Your task to perform on an android device: stop showing notifications on the lock screen Image 0: 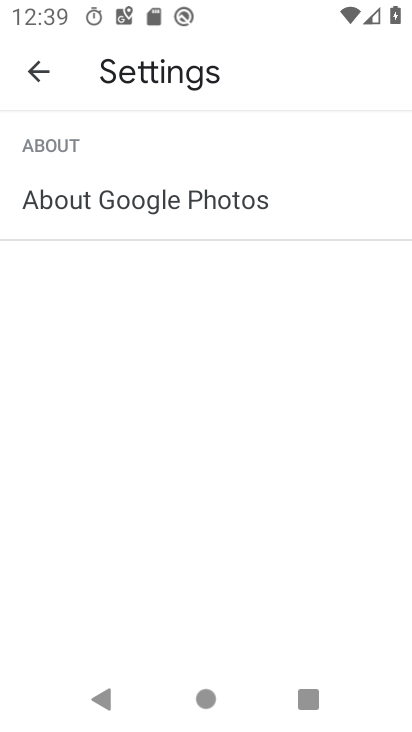
Step 0: click (29, 59)
Your task to perform on an android device: stop showing notifications on the lock screen Image 1: 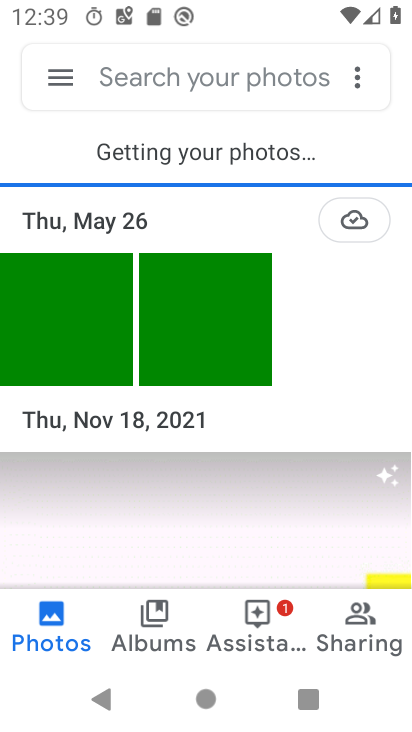
Step 1: press back button
Your task to perform on an android device: stop showing notifications on the lock screen Image 2: 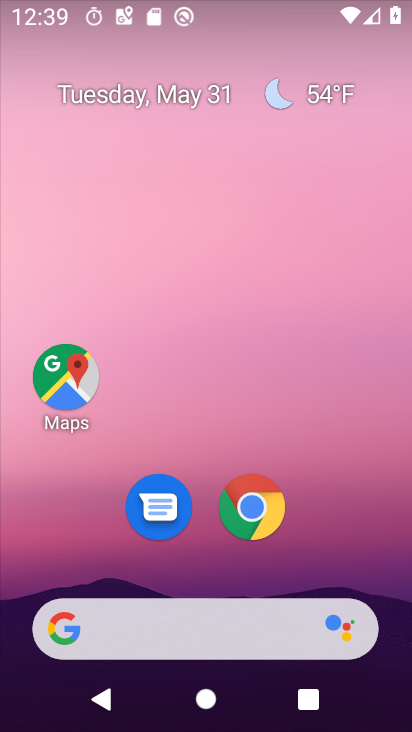
Step 2: drag from (324, 655) to (173, 11)
Your task to perform on an android device: stop showing notifications on the lock screen Image 3: 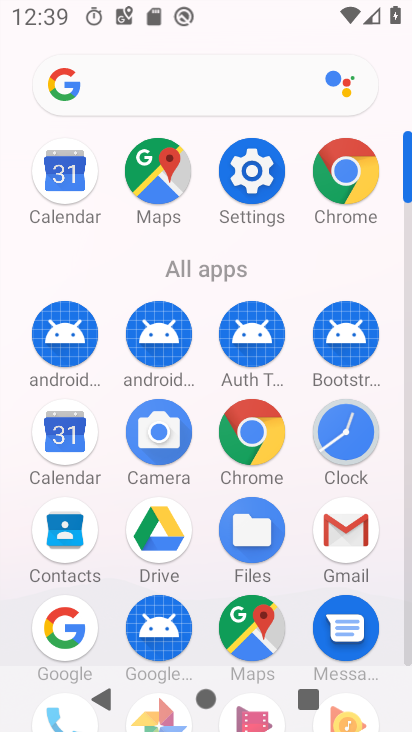
Step 3: click (244, 179)
Your task to perform on an android device: stop showing notifications on the lock screen Image 4: 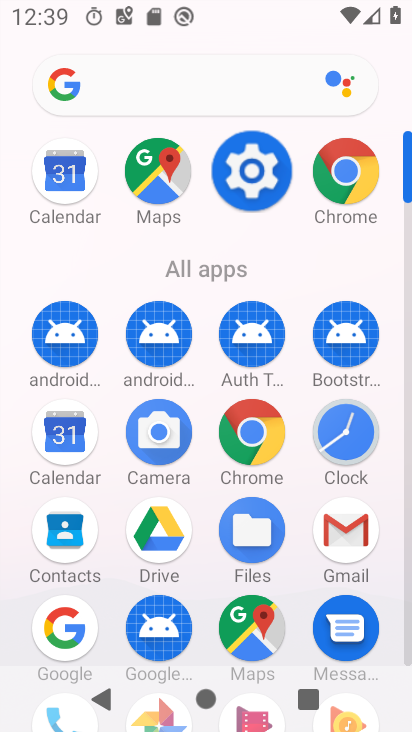
Step 4: click (249, 176)
Your task to perform on an android device: stop showing notifications on the lock screen Image 5: 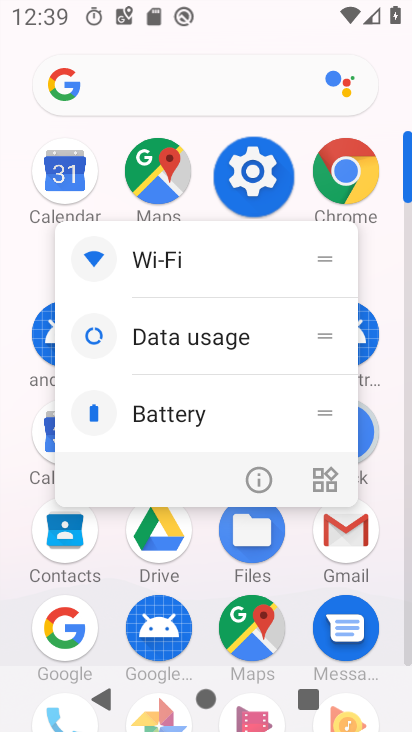
Step 5: click (252, 182)
Your task to perform on an android device: stop showing notifications on the lock screen Image 6: 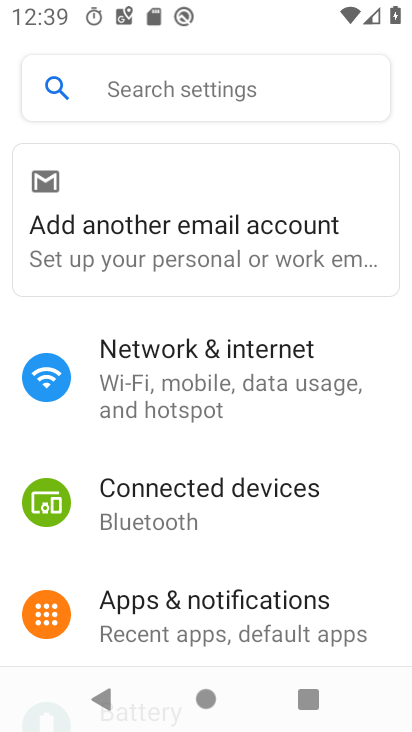
Step 6: click (267, 122)
Your task to perform on an android device: stop showing notifications on the lock screen Image 7: 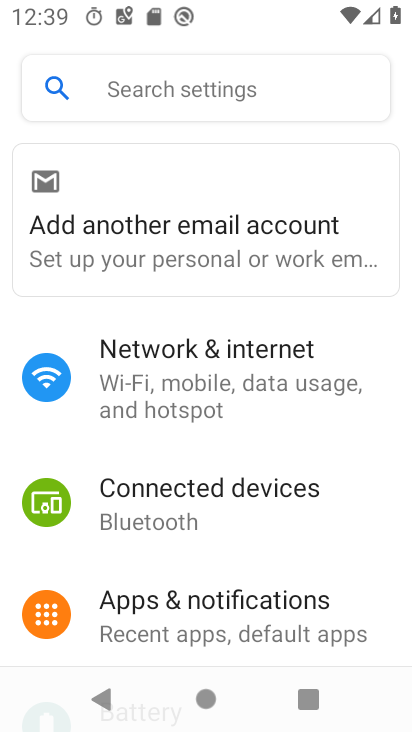
Step 7: click (266, 128)
Your task to perform on an android device: stop showing notifications on the lock screen Image 8: 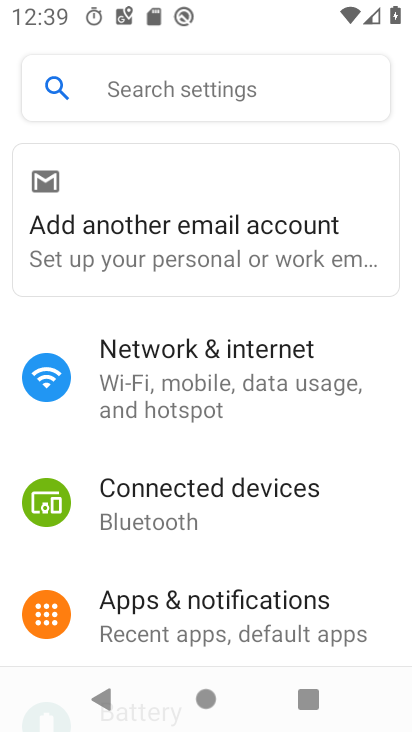
Step 8: click (266, 128)
Your task to perform on an android device: stop showing notifications on the lock screen Image 9: 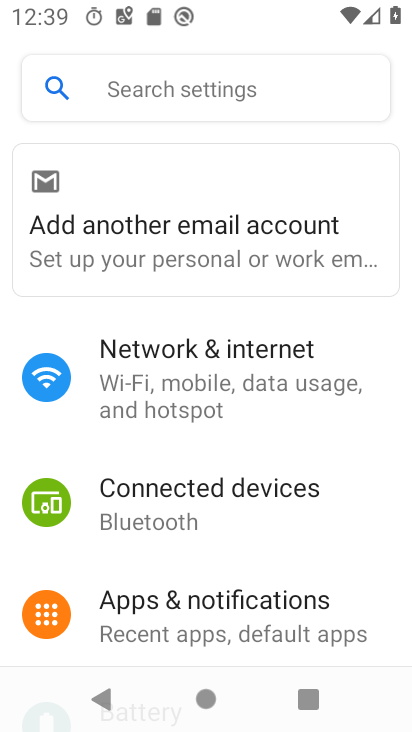
Step 9: click (265, 127)
Your task to perform on an android device: stop showing notifications on the lock screen Image 10: 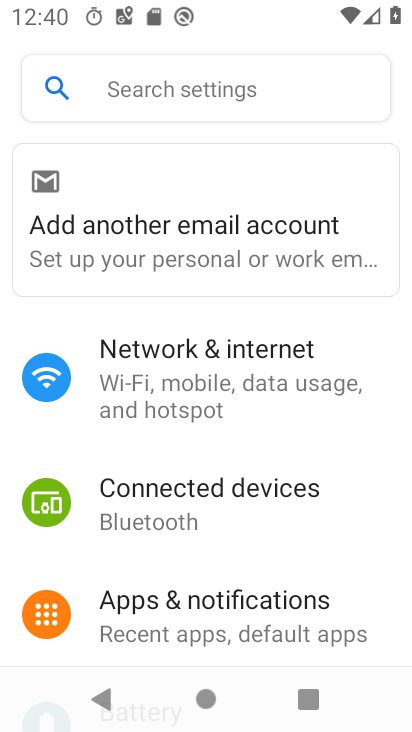
Step 10: drag from (196, 596) to (182, 178)
Your task to perform on an android device: stop showing notifications on the lock screen Image 11: 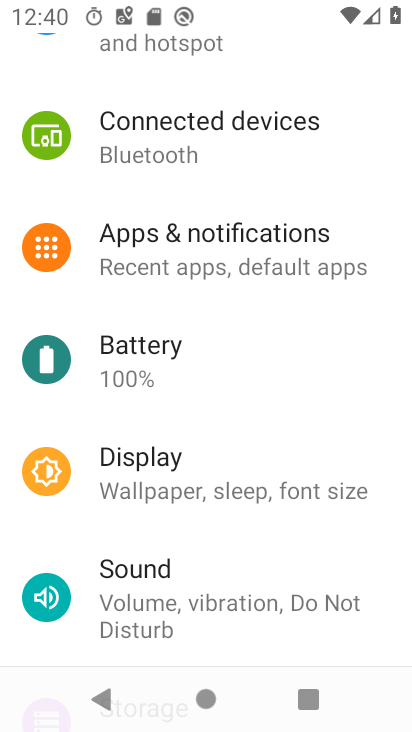
Step 11: drag from (232, 472) to (209, 72)
Your task to perform on an android device: stop showing notifications on the lock screen Image 12: 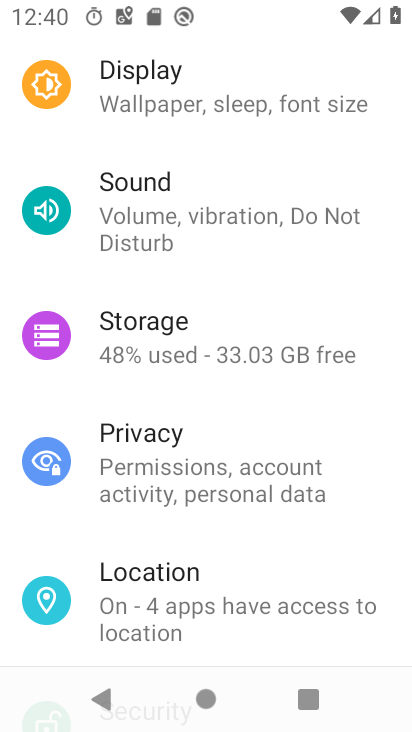
Step 12: click (153, 589)
Your task to perform on an android device: stop showing notifications on the lock screen Image 13: 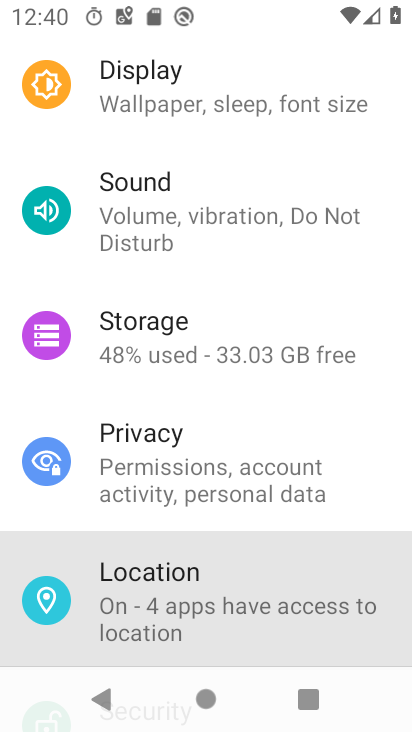
Step 13: click (156, 588)
Your task to perform on an android device: stop showing notifications on the lock screen Image 14: 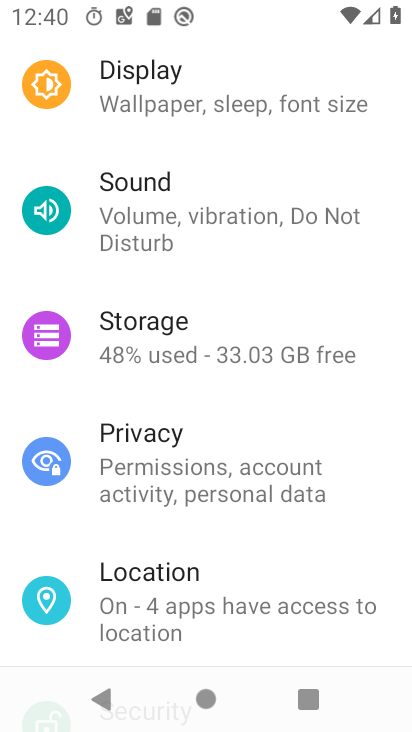
Step 14: click (158, 588)
Your task to perform on an android device: stop showing notifications on the lock screen Image 15: 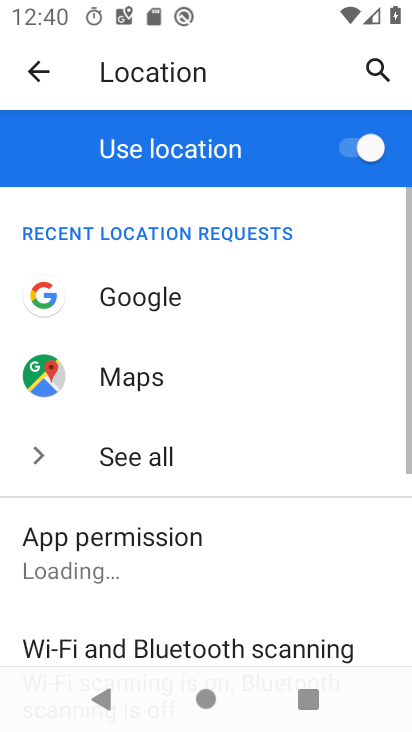
Step 15: drag from (143, 579) to (79, 193)
Your task to perform on an android device: stop showing notifications on the lock screen Image 16: 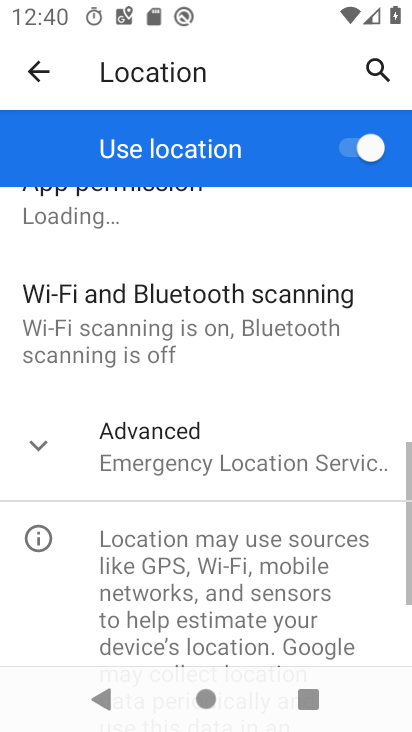
Step 16: drag from (132, 443) to (105, 10)
Your task to perform on an android device: stop showing notifications on the lock screen Image 17: 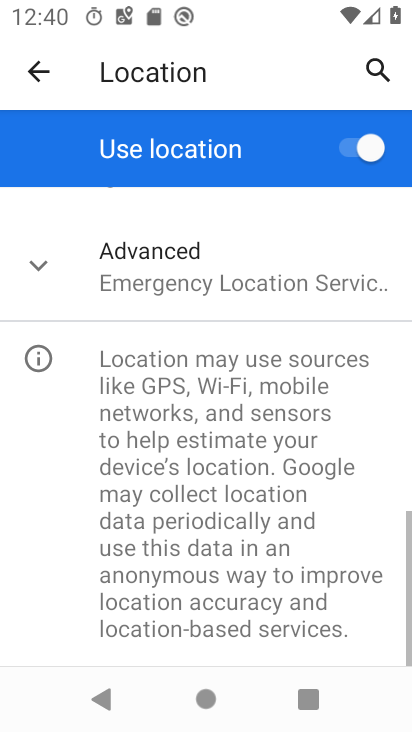
Step 17: click (170, 266)
Your task to perform on an android device: stop showing notifications on the lock screen Image 18: 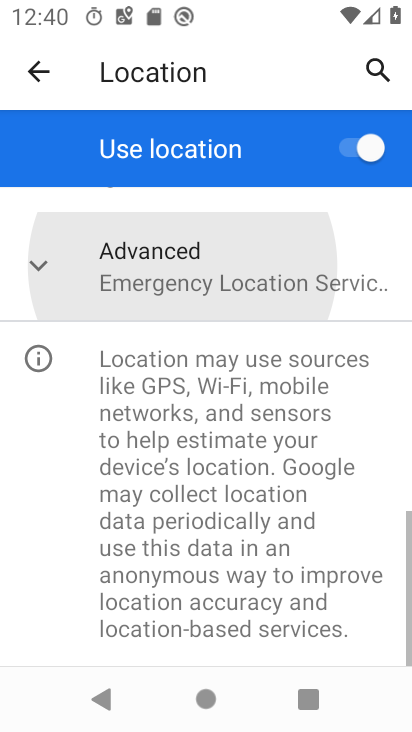
Step 18: click (170, 267)
Your task to perform on an android device: stop showing notifications on the lock screen Image 19: 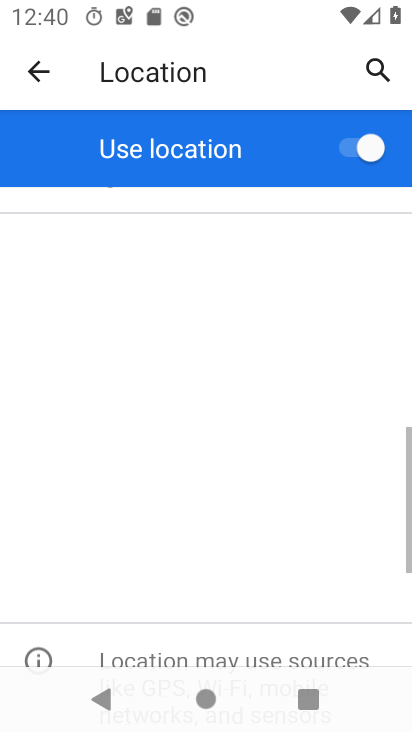
Step 19: click (177, 269)
Your task to perform on an android device: stop showing notifications on the lock screen Image 20: 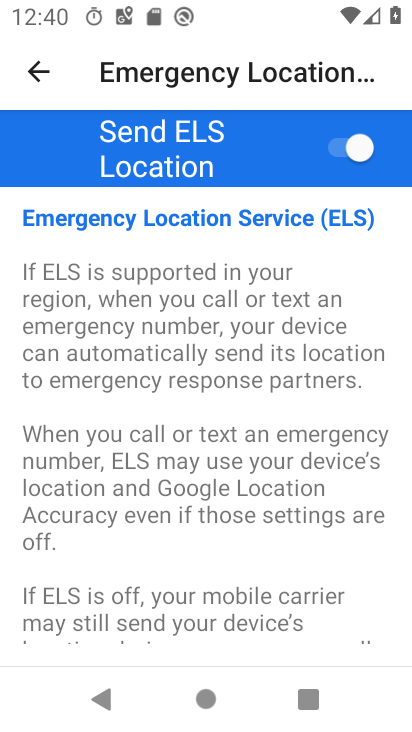
Step 20: click (25, 46)
Your task to perform on an android device: stop showing notifications on the lock screen Image 21: 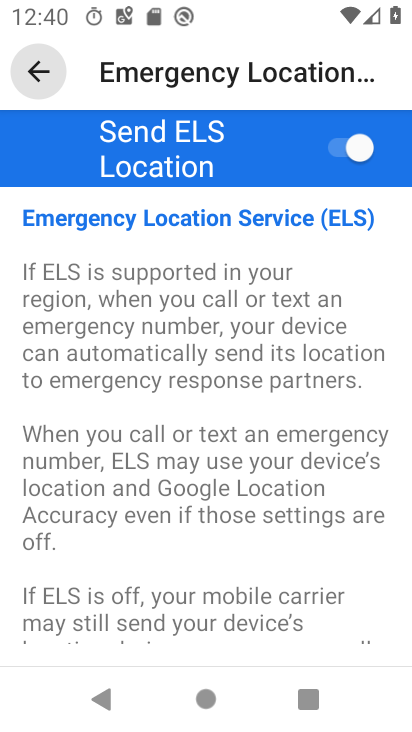
Step 21: click (40, 70)
Your task to perform on an android device: stop showing notifications on the lock screen Image 22: 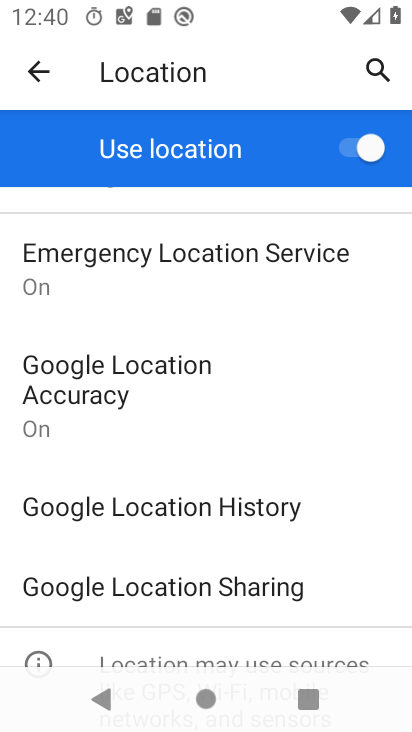
Step 22: drag from (199, 540) to (194, 192)
Your task to perform on an android device: stop showing notifications on the lock screen Image 23: 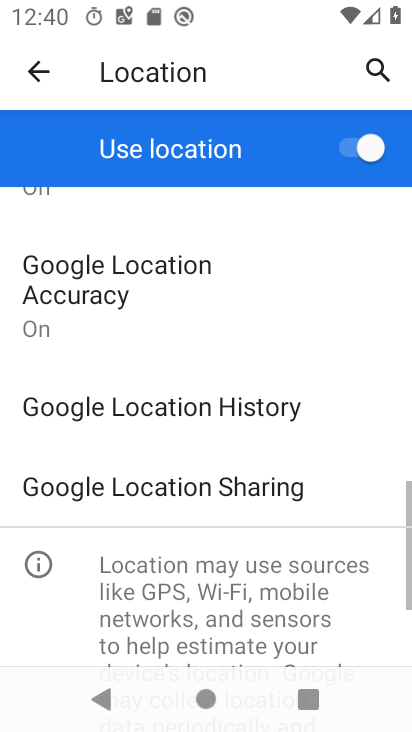
Step 23: drag from (212, 485) to (208, 247)
Your task to perform on an android device: stop showing notifications on the lock screen Image 24: 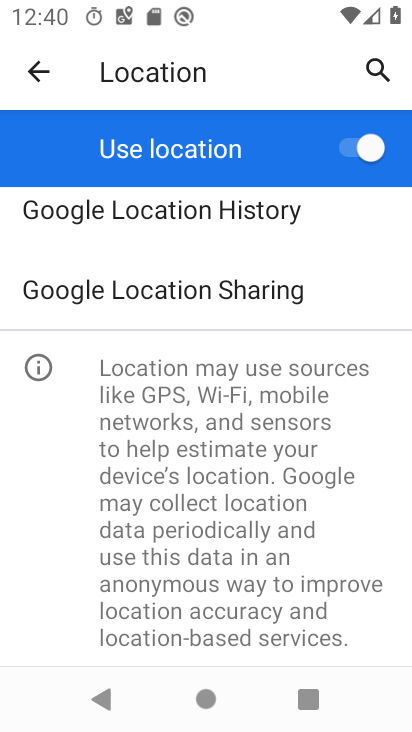
Step 24: drag from (146, 272) to (183, 565)
Your task to perform on an android device: stop showing notifications on the lock screen Image 25: 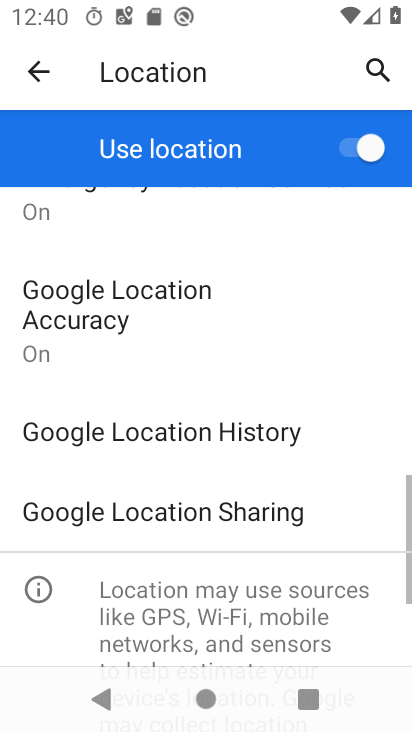
Step 25: drag from (173, 216) to (173, 454)
Your task to perform on an android device: stop showing notifications on the lock screen Image 26: 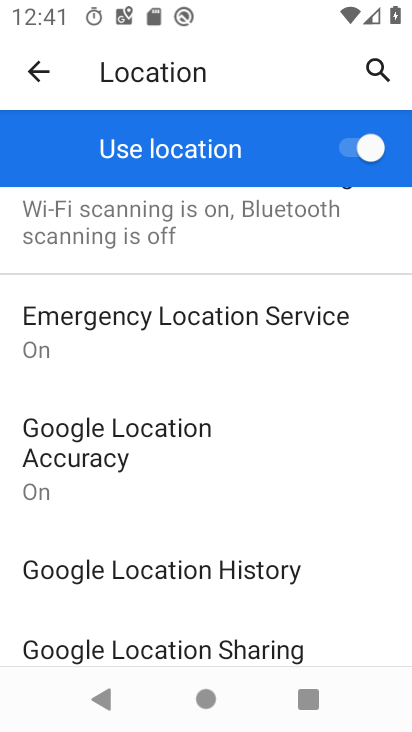
Step 26: drag from (137, 291) to (186, 473)
Your task to perform on an android device: stop showing notifications on the lock screen Image 27: 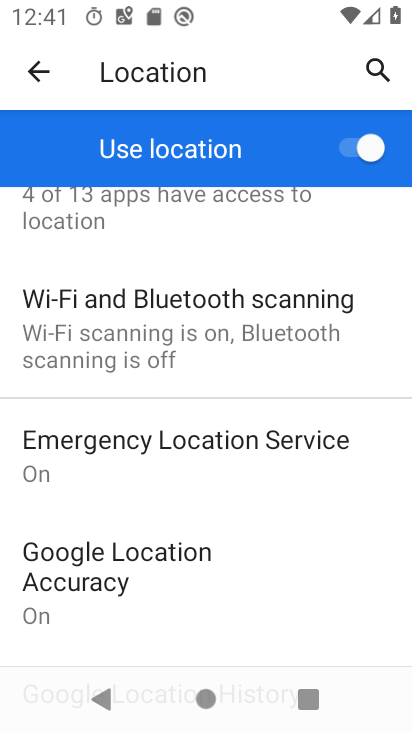
Step 27: click (35, 72)
Your task to perform on an android device: stop showing notifications on the lock screen Image 28: 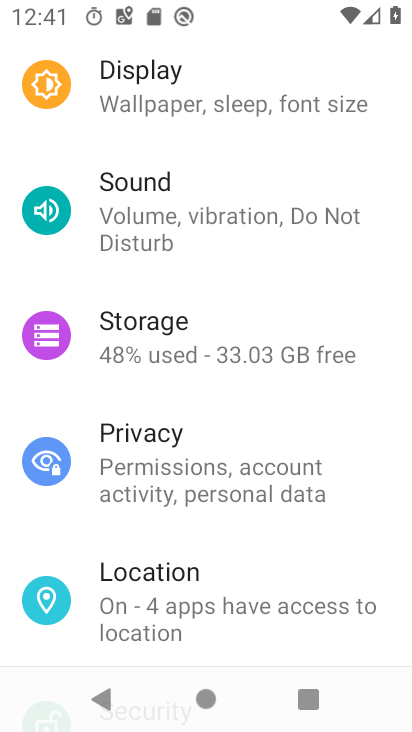
Step 28: drag from (98, 214) to (214, 475)
Your task to perform on an android device: stop showing notifications on the lock screen Image 29: 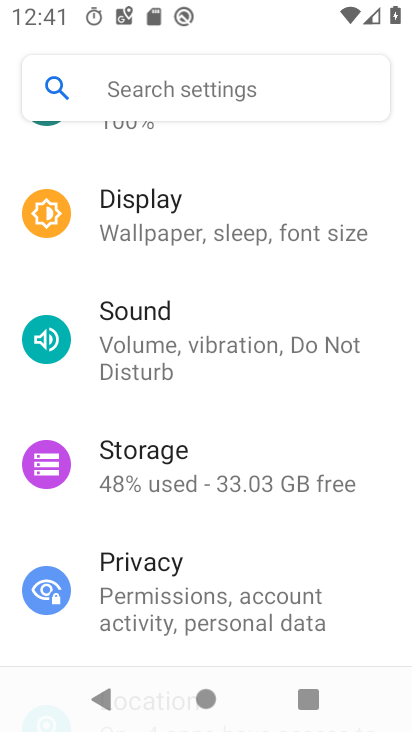
Step 29: drag from (224, 237) to (253, 482)
Your task to perform on an android device: stop showing notifications on the lock screen Image 30: 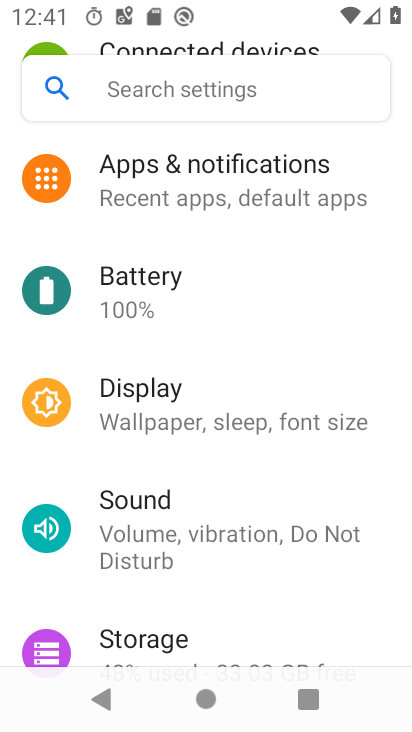
Step 30: drag from (236, 245) to (238, 501)
Your task to perform on an android device: stop showing notifications on the lock screen Image 31: 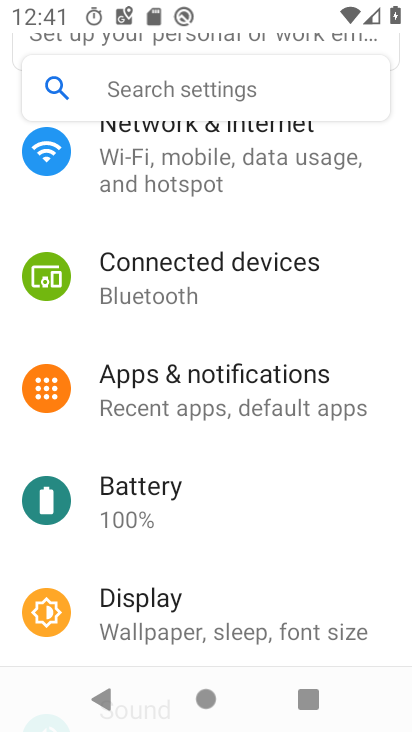
Step 31: click (196, 367)
Your task to perform on an android device: stop showing notifications on the lock screen Image 32: 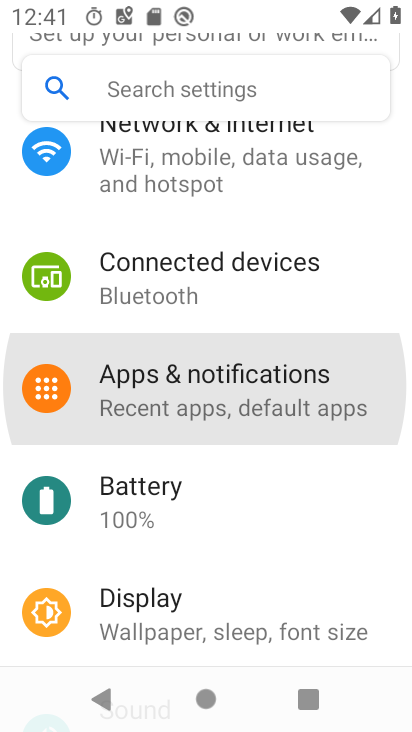
Step 32: click (206, 378)
Your task to perform on an android device: stop showing notifications on the lock screen Image 33: 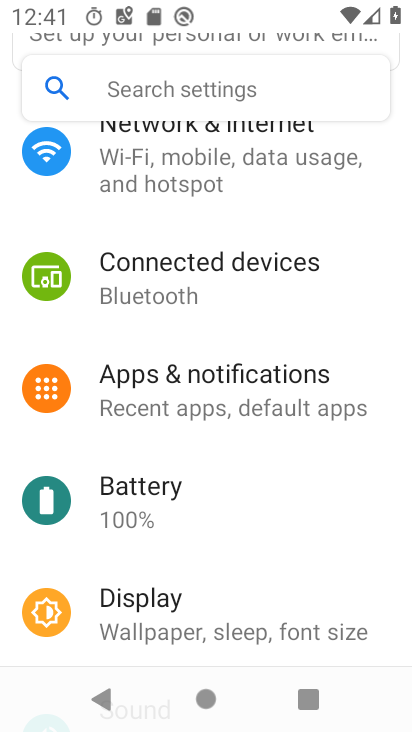
Step 33: click (206, 378)
Your task to perform on an android device: stop showing notifications on the lock screen Image 34: 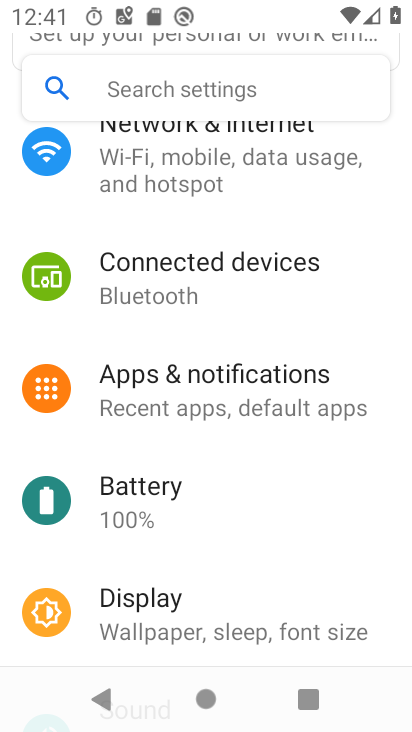
Step 34: click (209, 386)
Your task to perform on an android device: stop showing notifications on the lock screen Image 35: 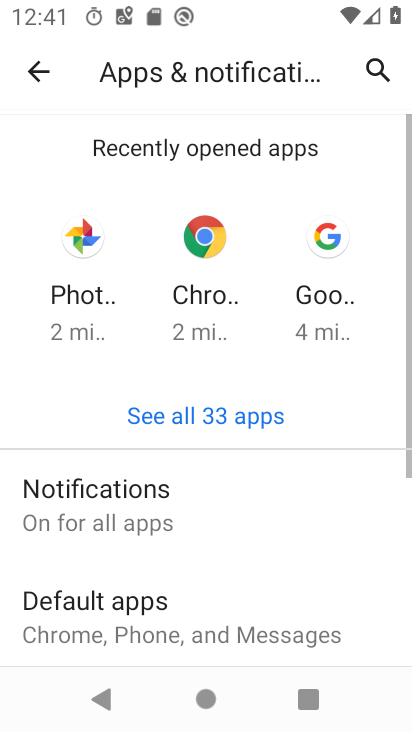
Step 35: click (95, 489)
Your task to perform on an android device: stop showing notifications on the lock screen Image 36: 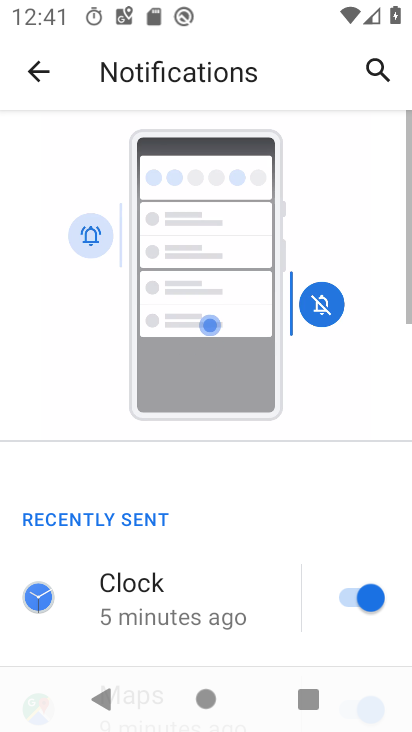
Step 36: drag from (205, 552) to (179, 179)
Your task to perform on an android device: stop showing notifications on the lock screen Image 37: 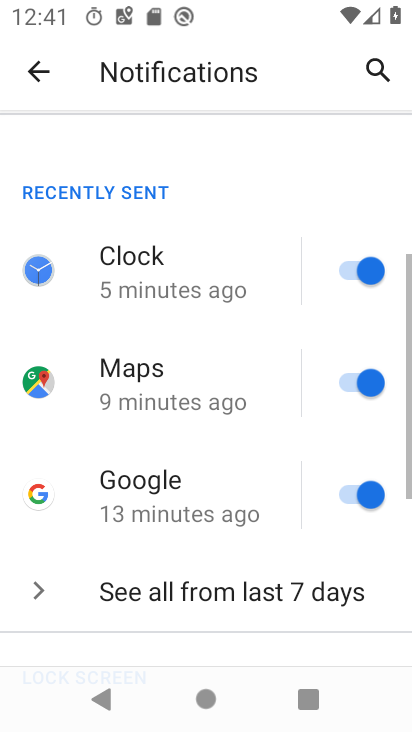
Step 37: drag from (254, 464) to (277, 160)
Your task to perform on an android device: stop showing notifications on the lock screen Image 38: 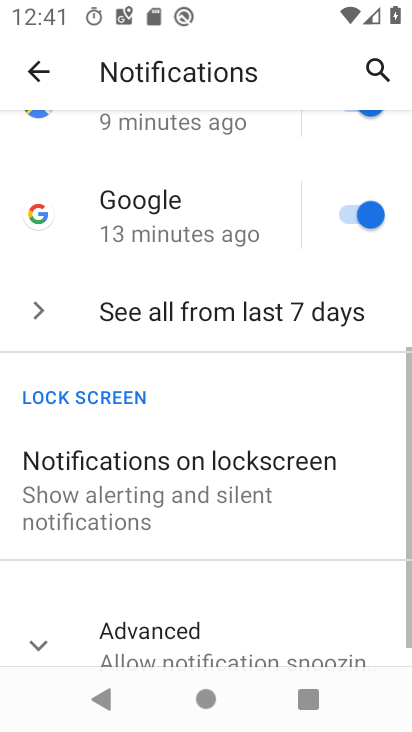
Step 38: drag from (272, 462) to (281, 176)
Your task to perform on an android device: stop showing notifications on the lock screen Image 39: 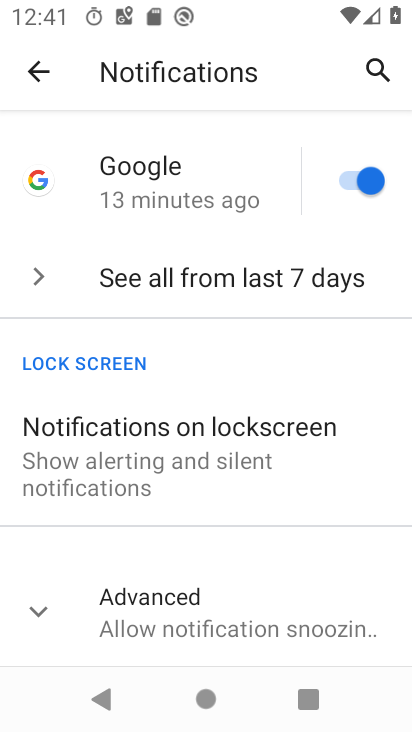
Step 39: click (152, 445)
Your task to perform on an android device: stop showing notifications on the lock screen Image 40: 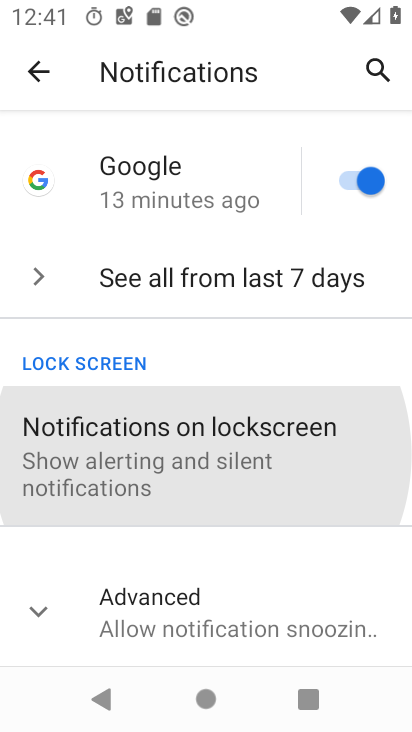
Step 40: click (152, 445)
Your task to perform on an android device: stop showing notifications on the lock screen Image 41: 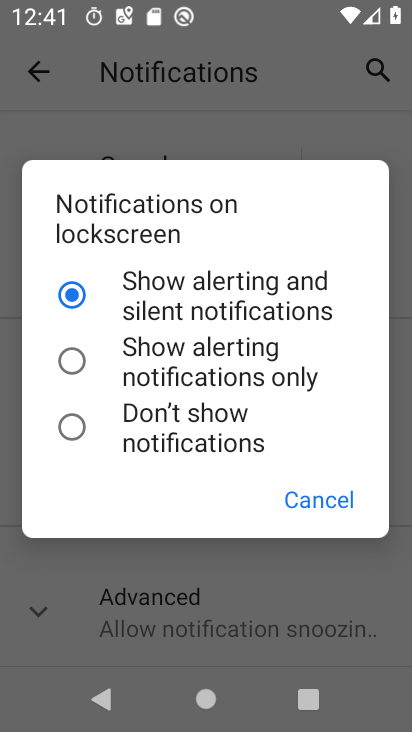
Step 41: click (152, 445)
Your task to perform on an android device: stop showing notifications on the lock screen Image 42: 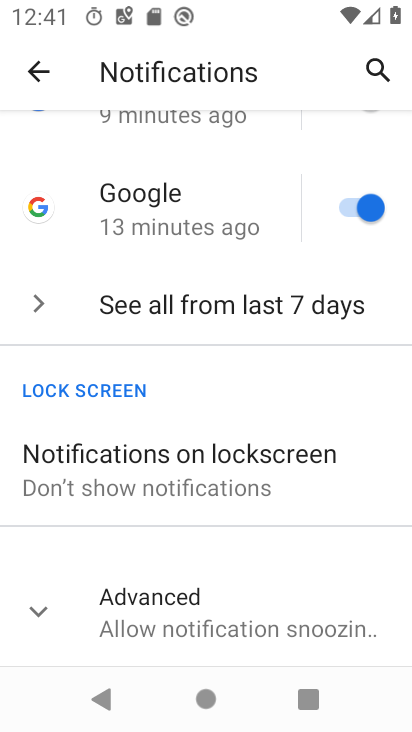
Step 42: task complete